Your task to perform on an android device: Set the phone to "Do not disturb". Image 0: 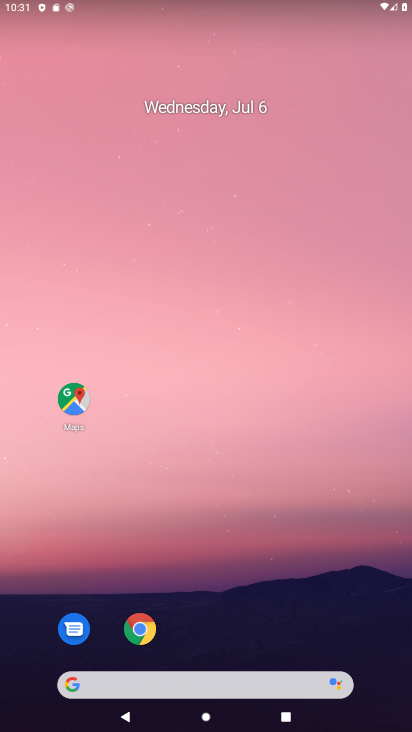
Step 0: drag from (202, 0) to (163, 468)
Your task to perform on an android device: Set the phone to "Do not disturb". Image 1: 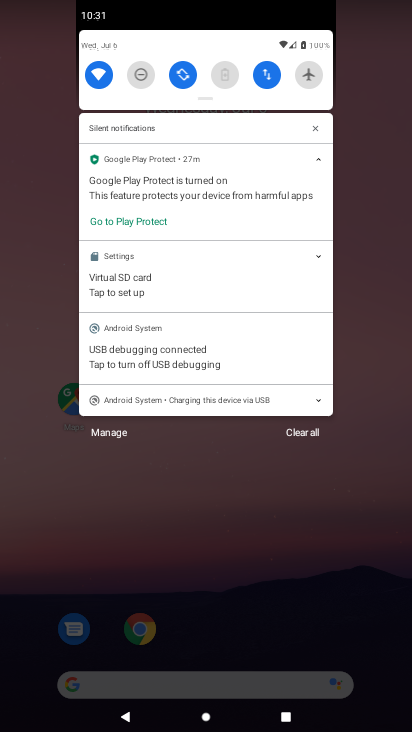
Step 1: click (132, 83)
Your task to perform on an android device: Set the phone to "Do not disturb". Image 2: 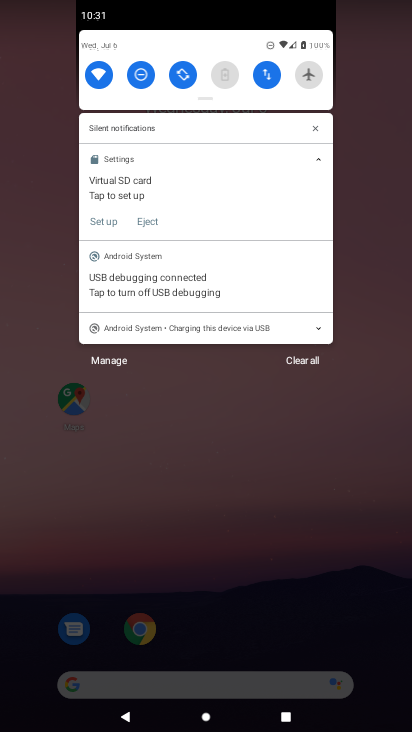
Step 2: task complete